Your task to perform on an android device: Search for Italian restaurants on Maps Image 0: 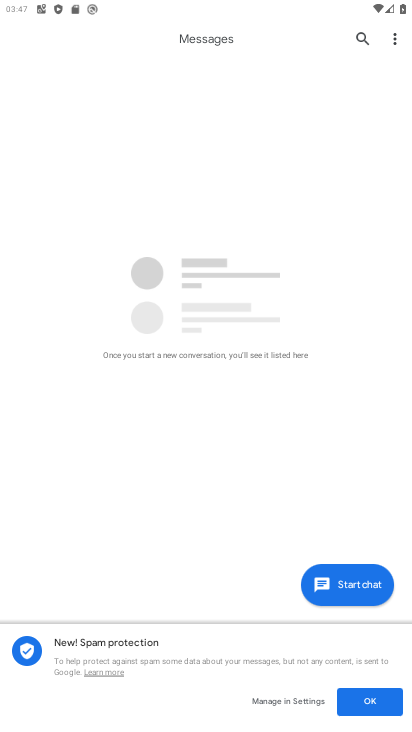
Step 0: press home button
Your task to perform on an android device: Search for Italian restaurants on Maps Image 1: 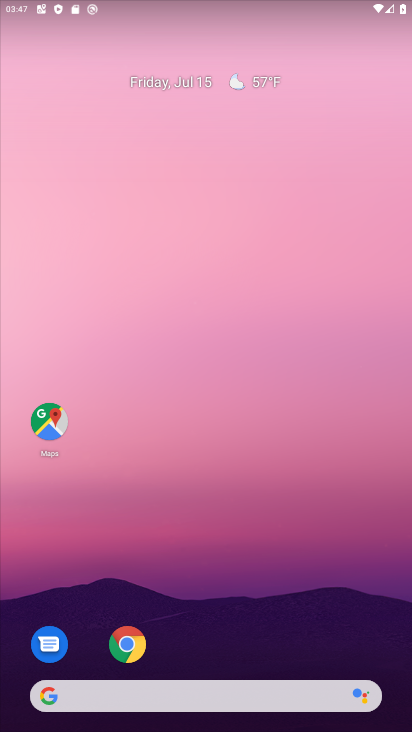
Step 1: click (55, 425)
Your task to perform on an android device: Search for Italian restaurants on Maps Image 2: 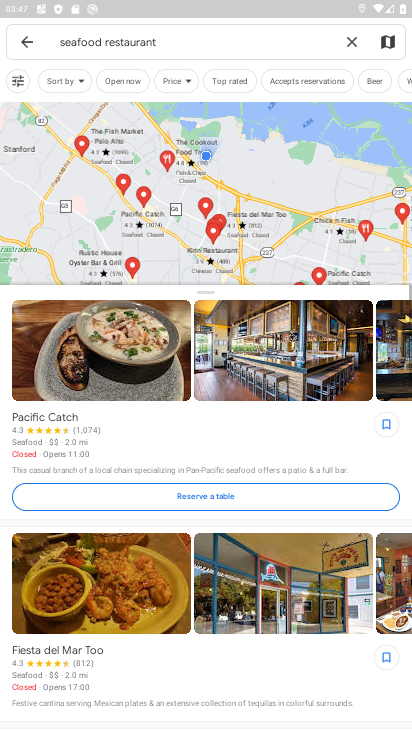
Step 2: click (356, 44)
Your task to perform on an android device: Search for Italian restaurants on Maps Image 3: 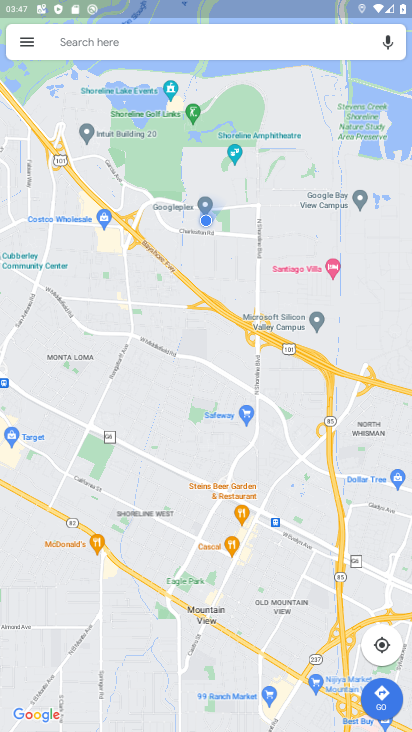
Step 3: click (253, 43)
Your task to perform on an android device: Search for Italian restaurants on Maps Image 4: 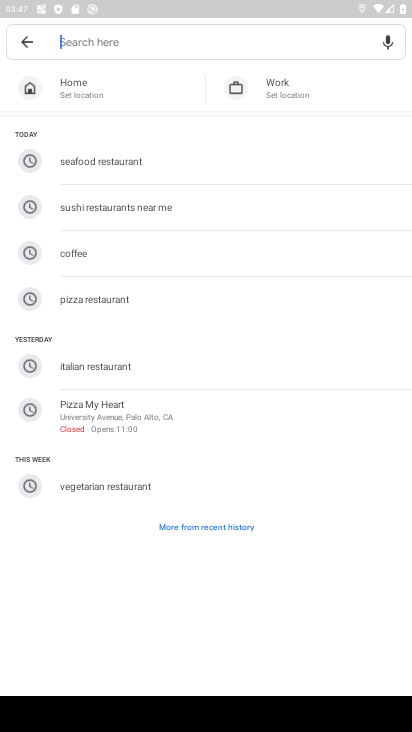
Step 4: click (275, 377)
Your task to perform on an android device: Search for Italian restaurants on Maps Image 5: 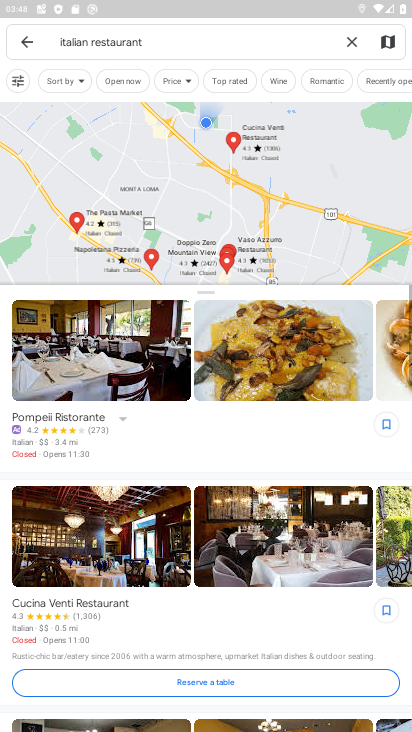
Step 5: task complete